Your task to perform on an android device: turn off translation in the chrome app Image 0: 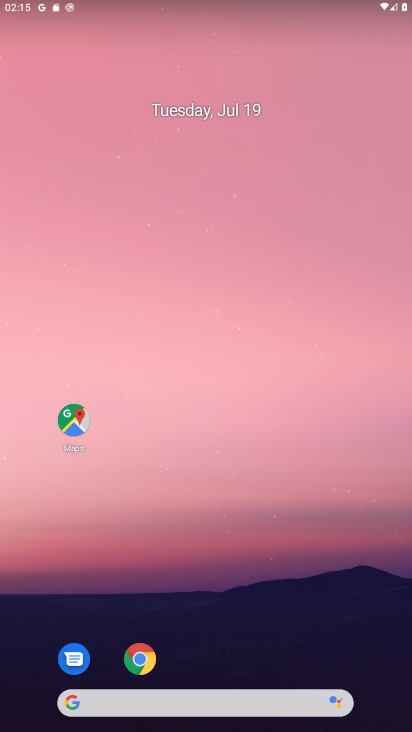
Step 0: drag from (231, 688) to (256, 96)
Your task to perform on an android device: turn off translation in the chrome app Image 1: 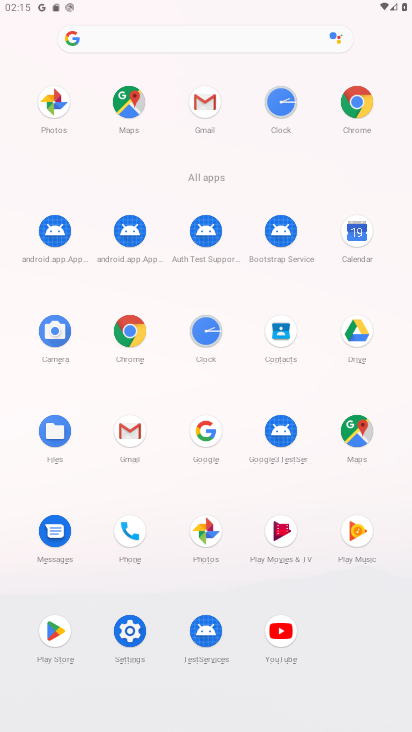
Step 1: click (363, 104)
Your task to perform on an android device: turn off translation in the chrome app Image 2: 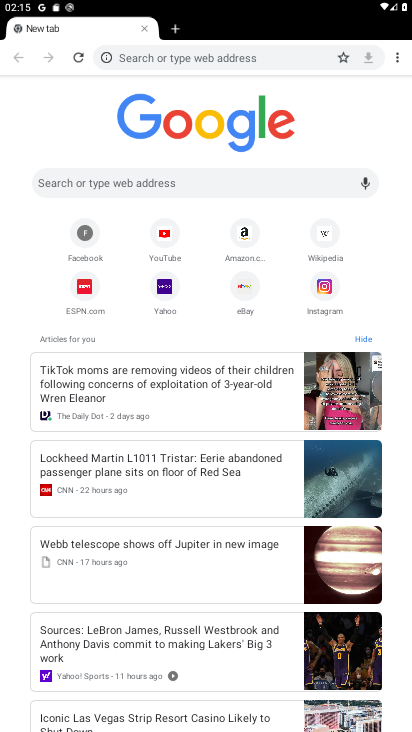
Step 2: click (399, 57)
Your task to perform on an android device: turn off translation in the chrome app Image 3: 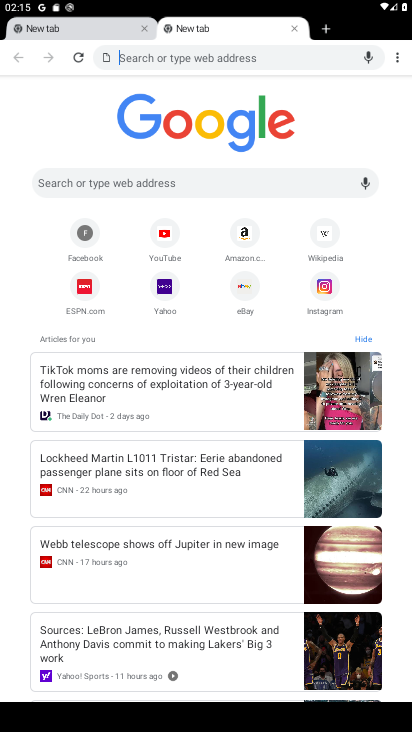
Step 3: click (392, 57)
Your task to perform on an android device: turn off translation in the chrome app Image 4: 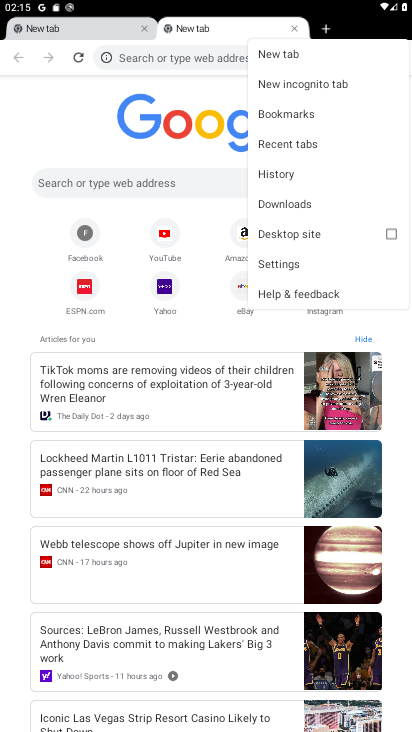
Step 4: click (286, 259)
Your task to perform on an android device: turn off translation in the chrome app Image 5: 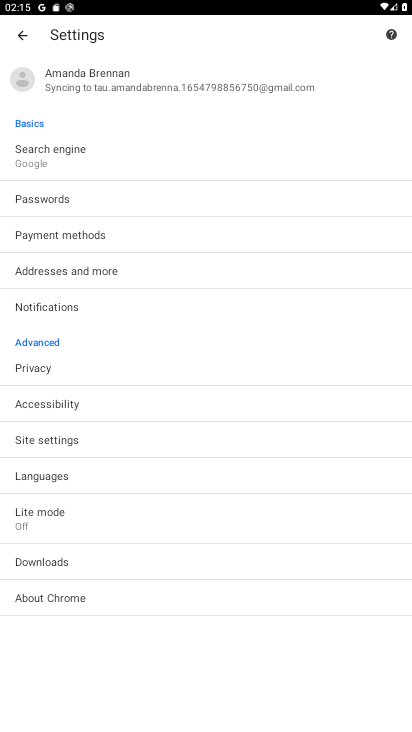
Step 5: click (60, 469)
Your task to perform on an android device: turn off translation in the chrome app Image 6: 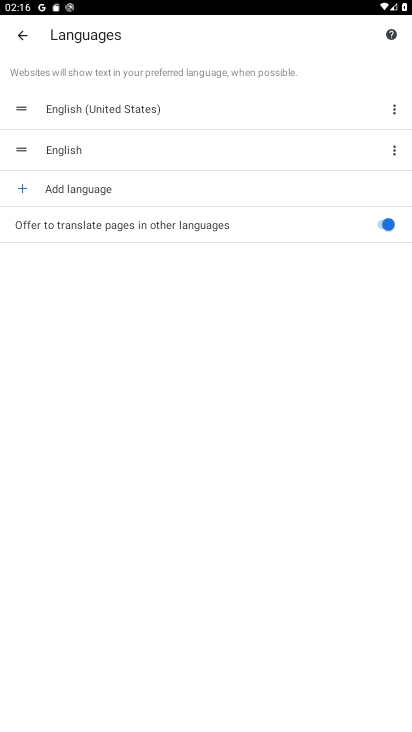
Step 6: click (379, 223)
Your task to perform on an android device: turn off translation in the chrome app Image 7: 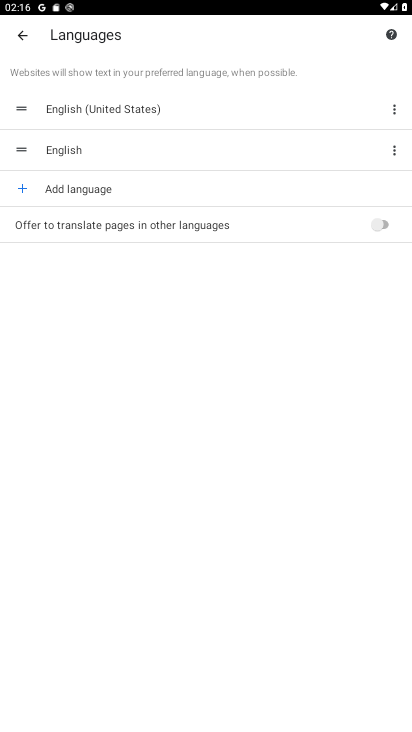
Step 7: task complete